Your task to perform on an android device: turn on javascript in the chrome app Image 0: 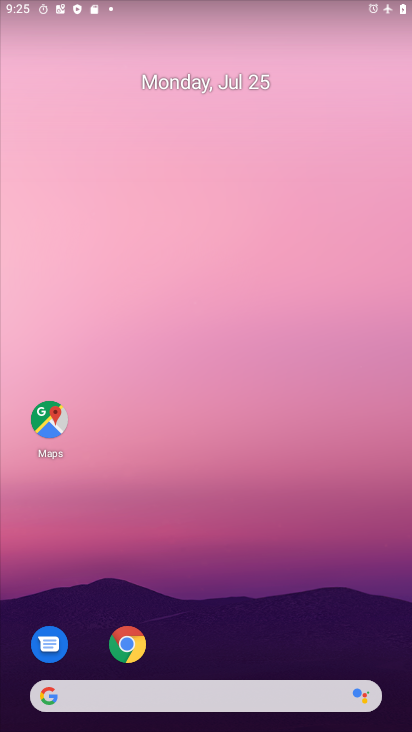
Step 0: drag from (219, 577) to (224, 59)
Your task to perform on an android device: turn on javascript in the chrome app Image 1: 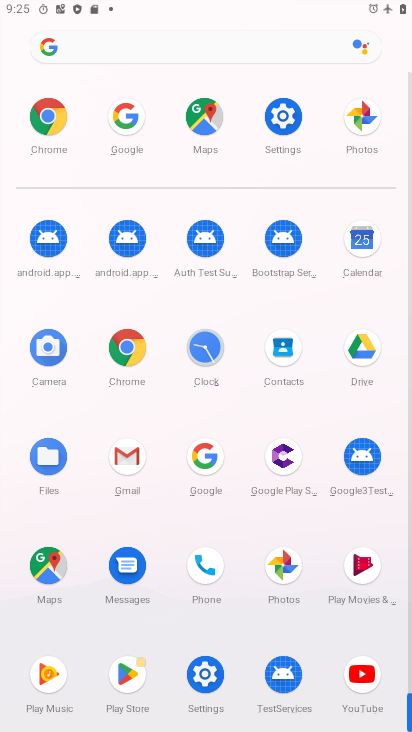
Step 1: click (130, 354)
Your task to perform on an android device: turn on javascript in the chrome app Image 2: 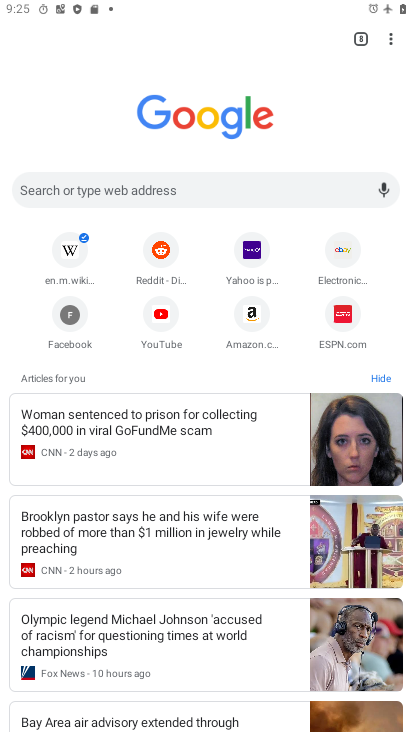
Step 2: click (393, 41)
Your task to perform on an android device: turn on javascript in the chrome app Image 3: 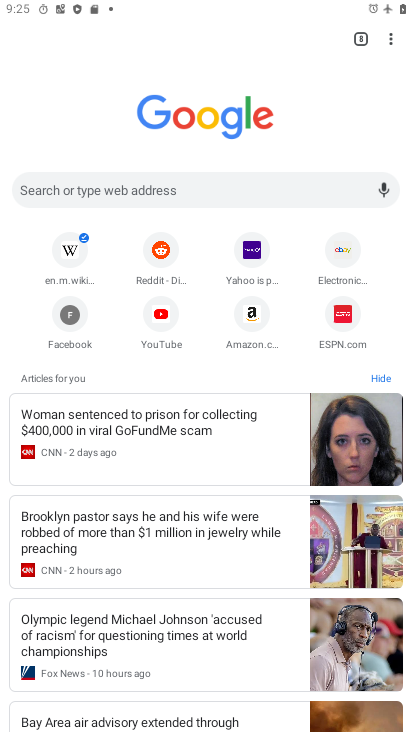
Step 3: click (386, 40)
Your task to perform on an android device: turn on javascript in the chrome app Image 4: 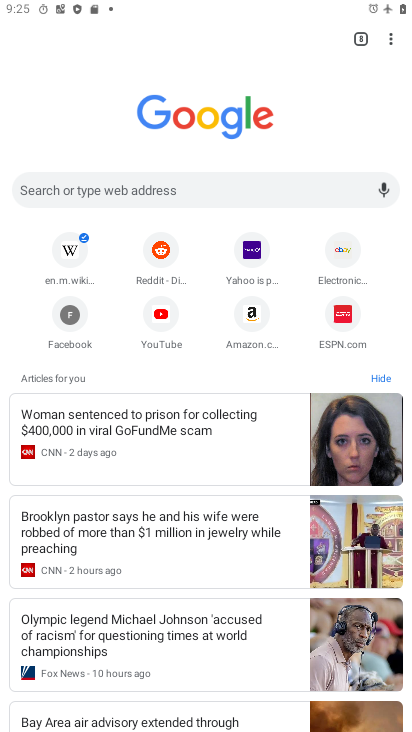
Step 4: click (392, 38)
Your task to perform on an android device: turn on javascript in the chrome app Image 5: 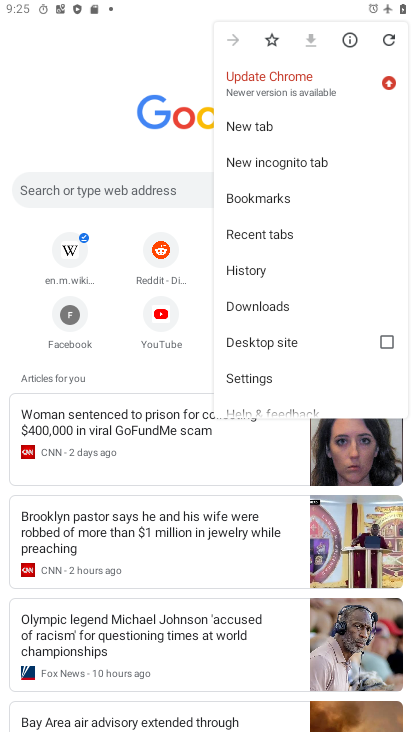
Step 5: click (272, 377)
Your task to perform on an android device: turn on javascript in the chrome app Image 6: 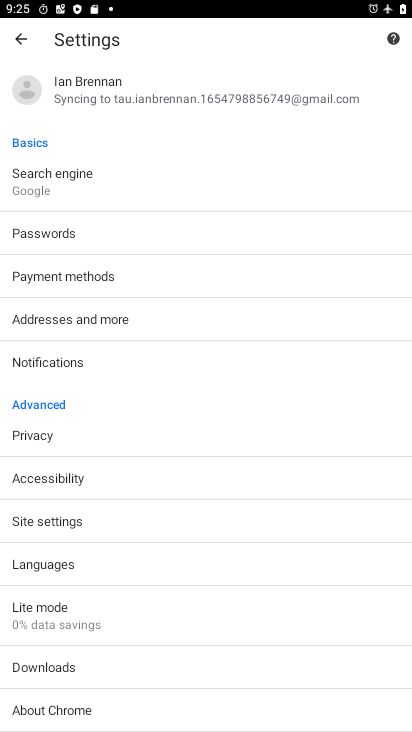
Step 6: click (108, 522)
Your task to perform on an android device: turn on javascript in the chrome app Image 7: 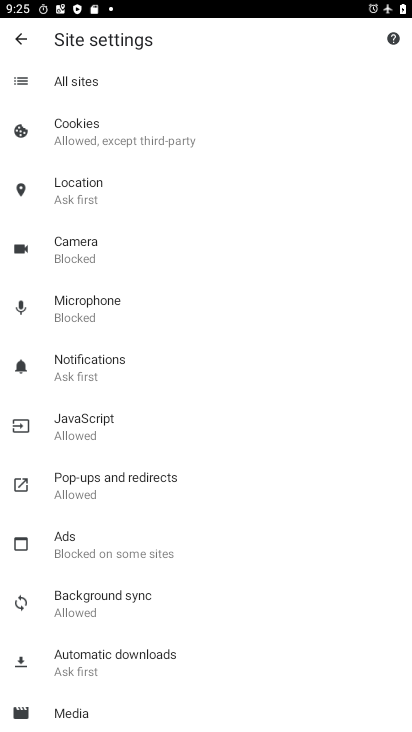
Step 7: click (133, 434)
Your task to perform on an android device: turn on javascript in the chrome app Image 8: 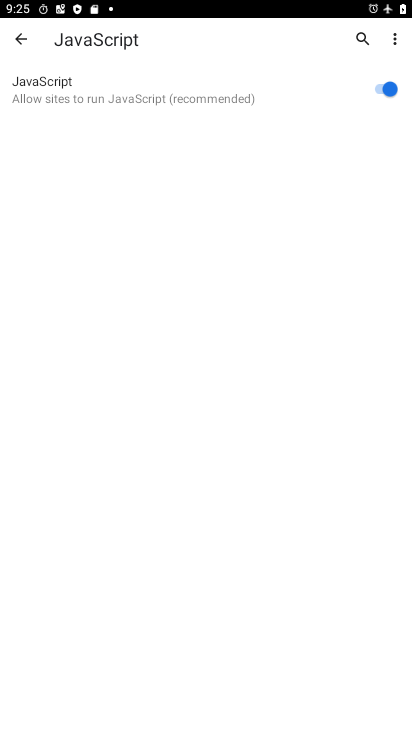
Step 8: task complete